Your task to perform on an android device: Open network settings Image 0: 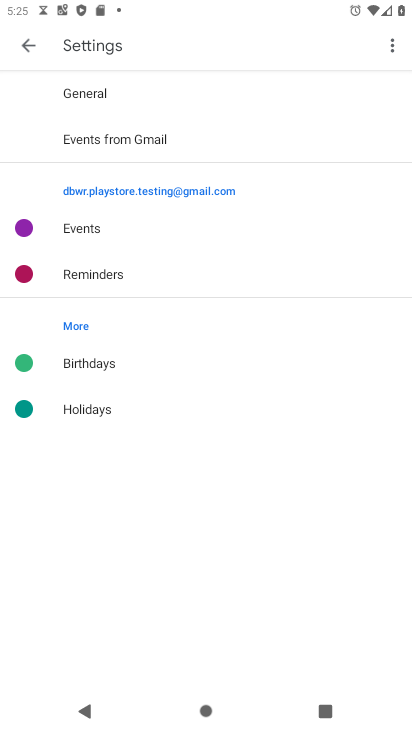
Step 0: press back button
Your task to perform on an android device: Open network settings Image 1: 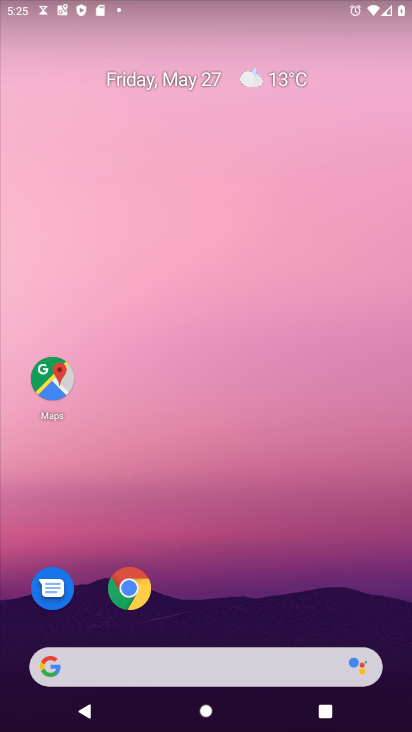
Step 1: drag from (242, 604) to (310, 67)
Your task to perform on an android device: Open network settings Image 2: 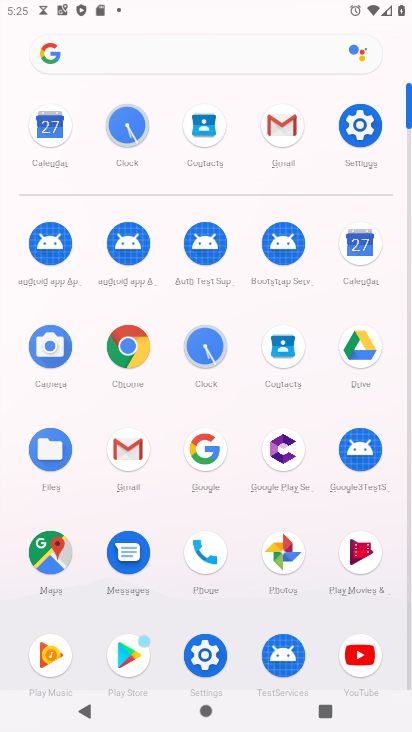
Step 2: click (357, 121)
Your task to perform on an android device: Open network settings Image 3: 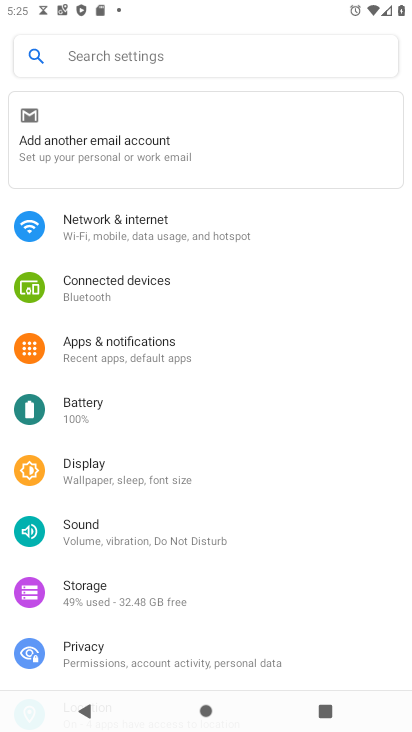
Step 3: click (105, 228)
Your task to perform on an android device: Open network settings Image 4: 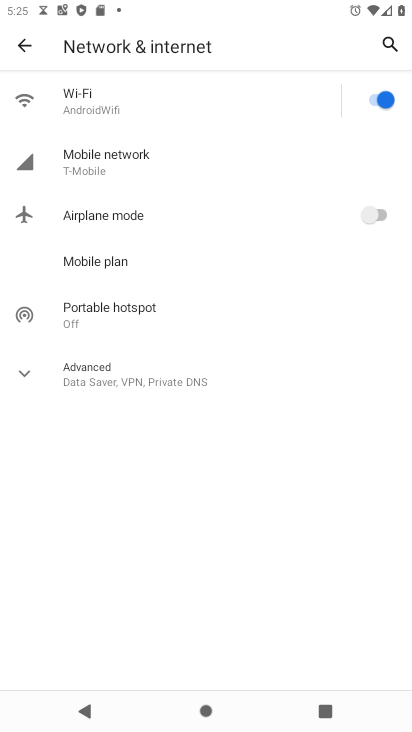
Step 4: task complete